Your task to perform on an android device: Open sound settings Image 0: 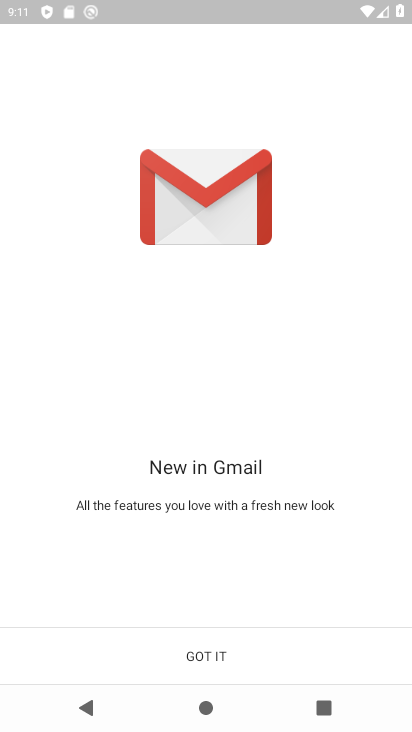
Step 0: press home button
Your task to perform on an android device: Open sound settings Image 1: 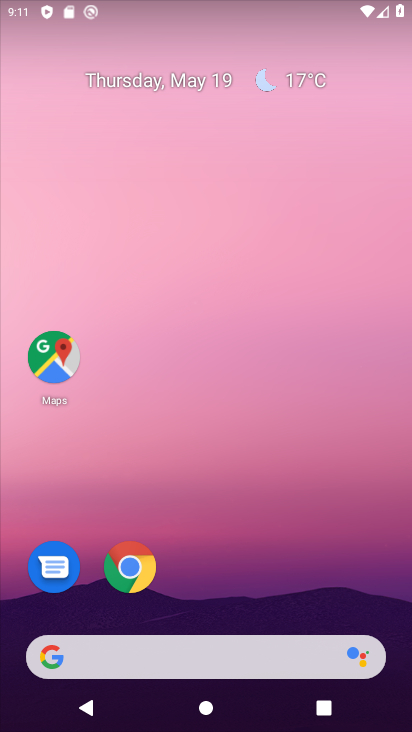
Step 1: drag from (273, 586) to (203, 176)
Your task to perform on an android device: Open sound settings Image 2: 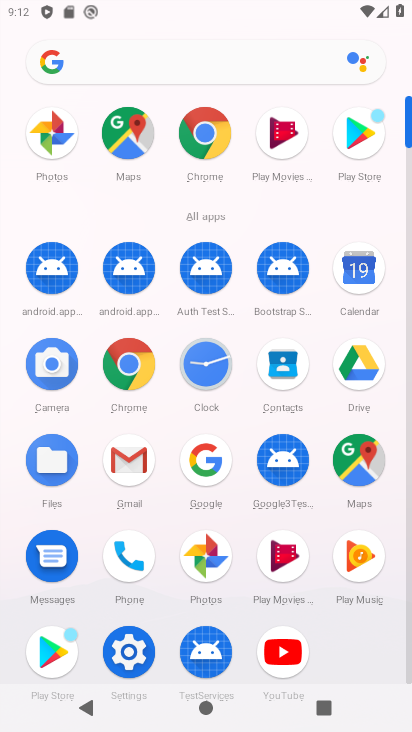
Step 2: click (143, 638)
Your task to perform on an android device: Open sound settings Image 3: 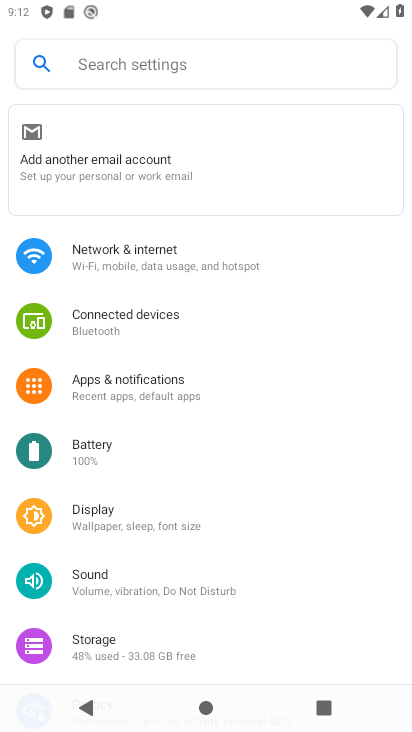
Step 3: click (150, 575)
Your task to perform on an android device: Open sound settings Image 4: 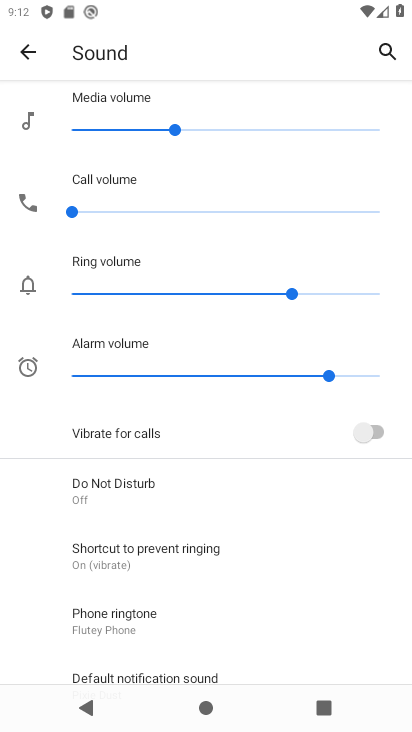
Step 4: task complete